Your task to perform on an android device: toggle show notifications on the lock screen Image 0: 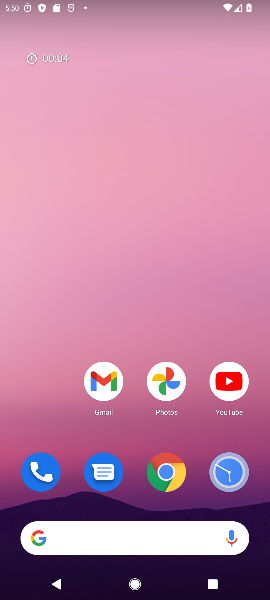
Step 0: press home button
Your task to perform on an android device: toggle show notifications on the lock screen Image 1: 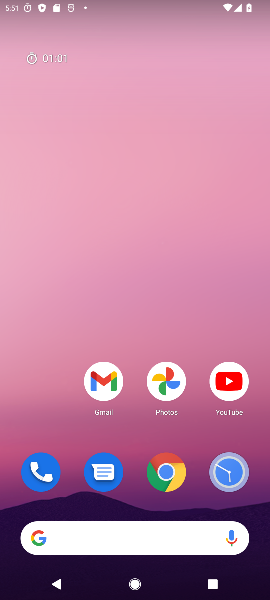
Step 1: drag from (136, 489) to (124, 65)
Your task to perform on an android device: toggle show notifications on the lock screen Image 2: 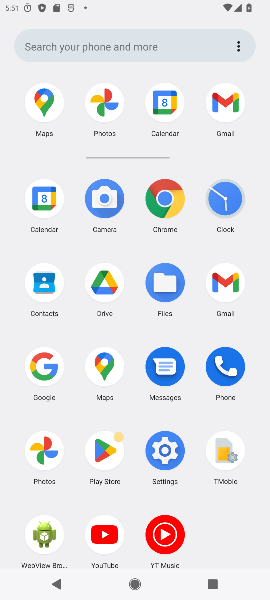
Step 2: click (166, 453)
Your task to perform on an android device: toggle show notifications on the lock screen Image 3: 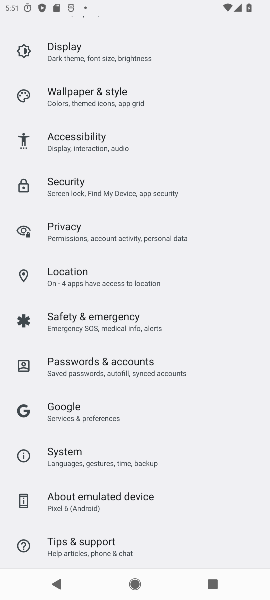
Step 3: drag from (217, 85) to (231, 569)
Your task to perform on an android device: toggle show notifications on the lock screen Image 4: 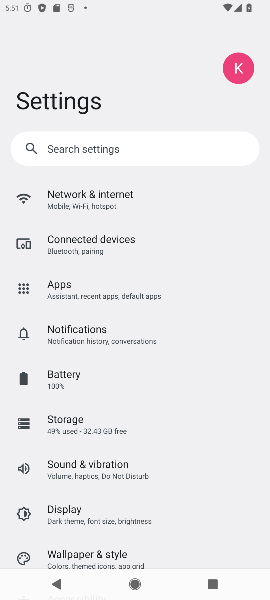
Step 4: click (83, 335)
Your task to perform on an android device: toggle show notifications on the lock screen Image 5: 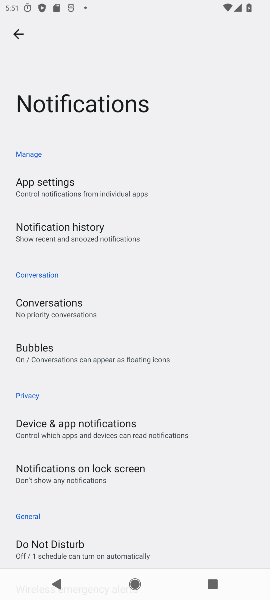
Step 5: click (82, 479)
Your task to perform on an android device: toggle show notifications on the lock screen Image 6: 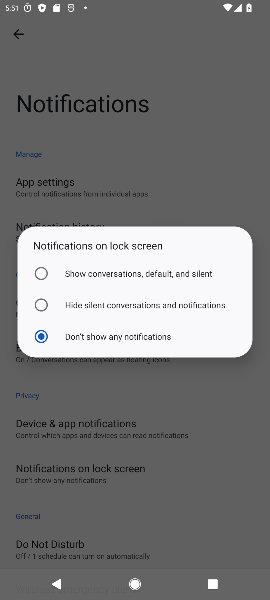
Step 6: click (42, 270)
Your task to perform on an android device: toggle show notifications on the lock screen Image 7: 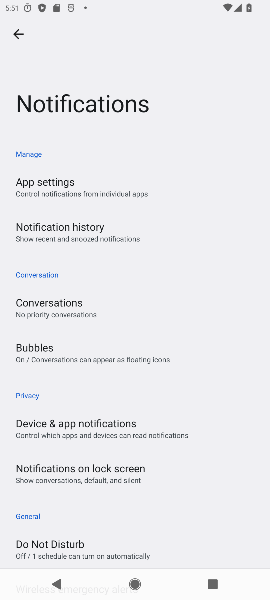
Step 7: task complete